Your task to perform on an android device: Search for the best movies of 2019  Image 0: 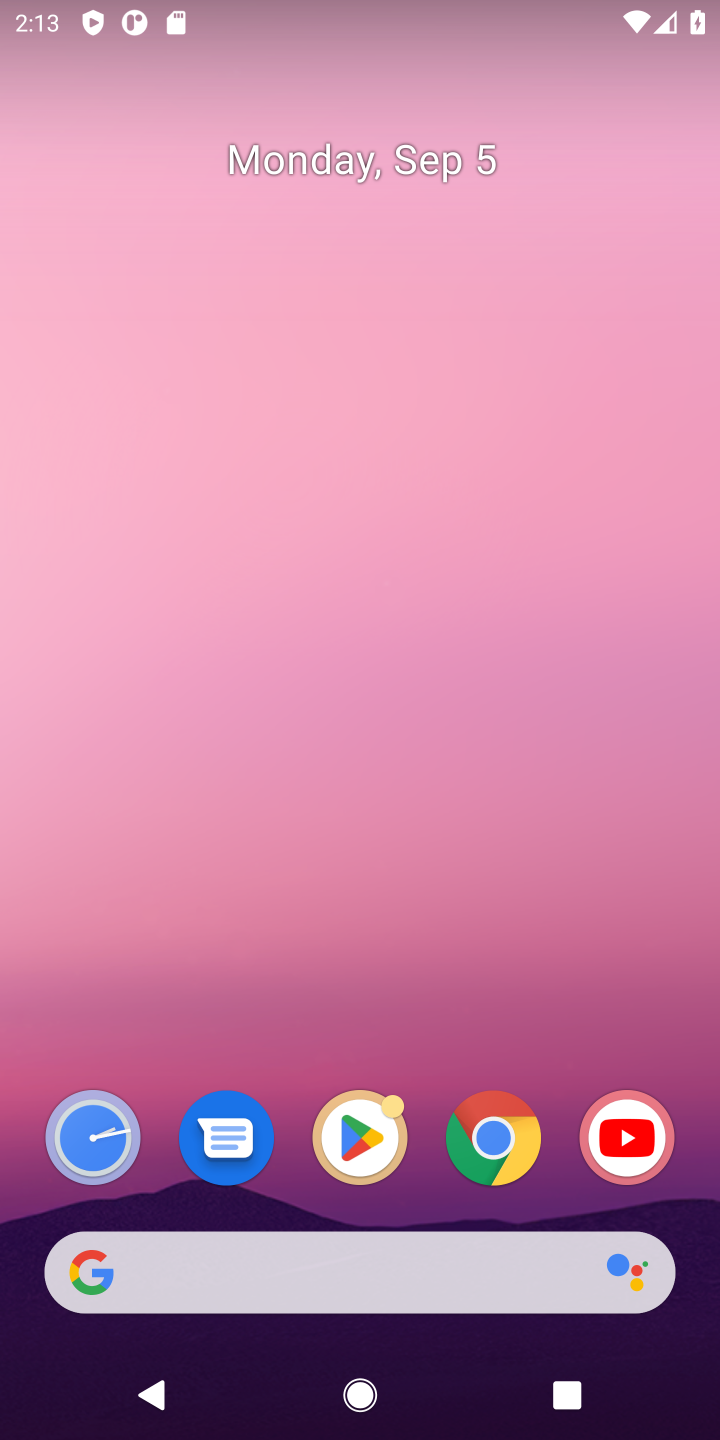
Step 0: click (502, 1140)
Your task to perform on an android device: Search for the best movies of 2019  Image 1: 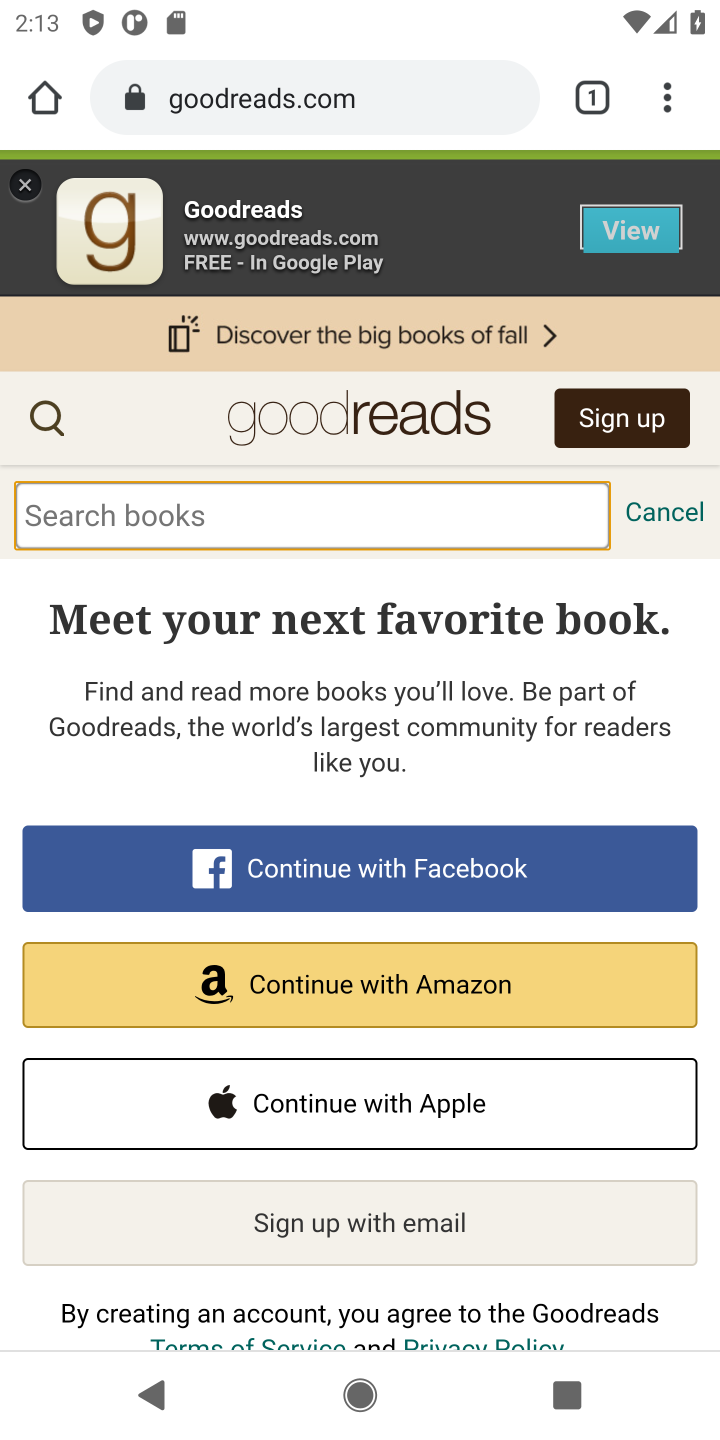
Step 1: task complete